Your task to perform on an android device: turn notification dots on Image 0: 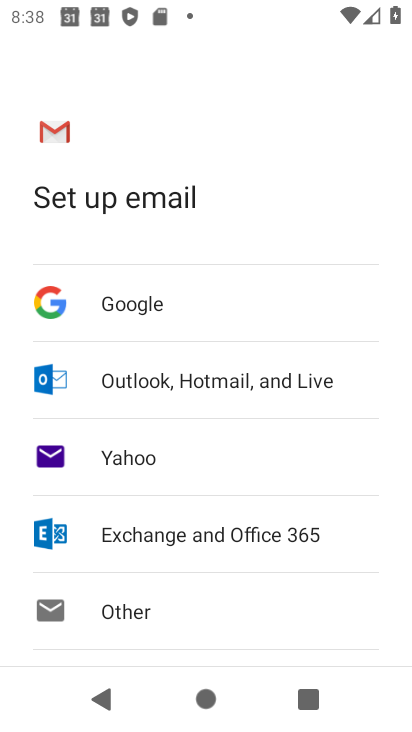
Step 0: press back button
Your task to perform on an android device: turn notification dots on Image 1: 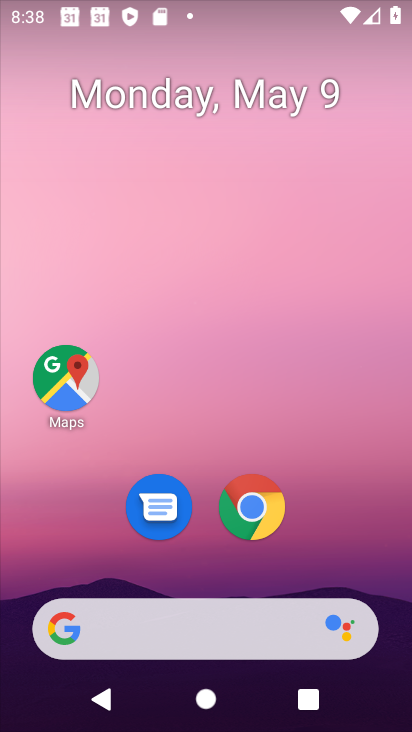
Step 1: drag from (350, 552) to (269, 148)
Your task to perform on an android device: turn notification dots on Image 2: 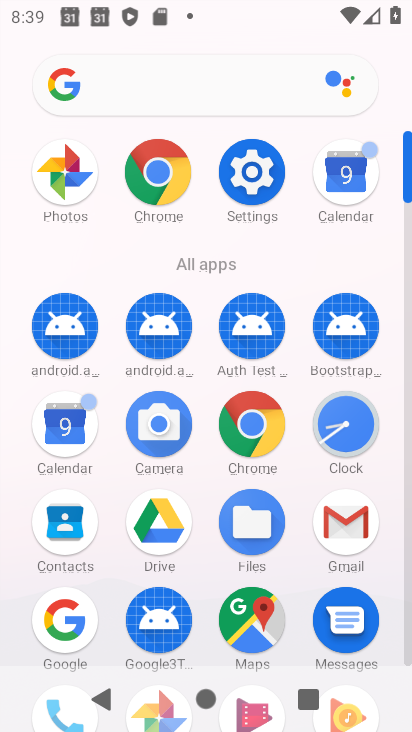
Step 2: click (254, 172)
Your task to perform on an android device: turn notification dots on Image 3: 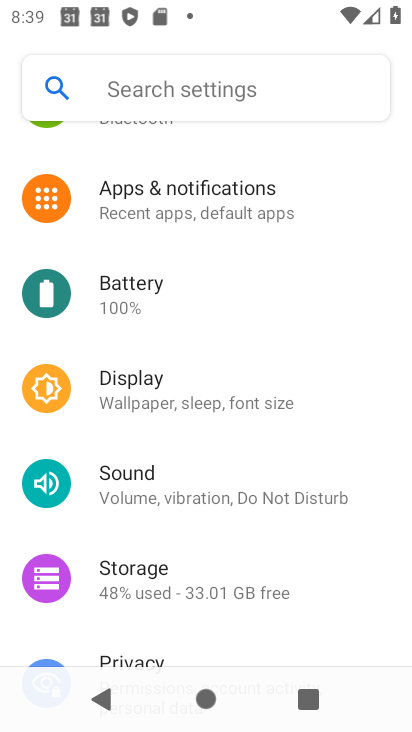
Step 3: click (210, 189)
Your task to perform on an android device: turn notification dots on Image 4: 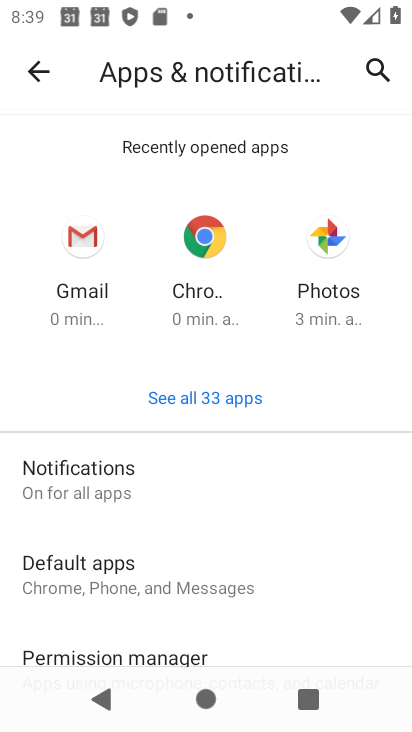
Step 4: click (95, 468)
Your task to perform on an android device: turn notification dots on Image 5: 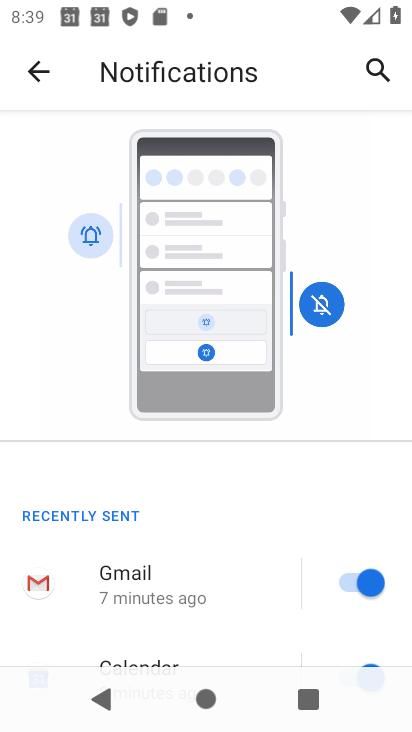
Step 5: drag from (212, 570) to (276, 374)
Your task to perform on an android device: turn notification dots on Image 6: 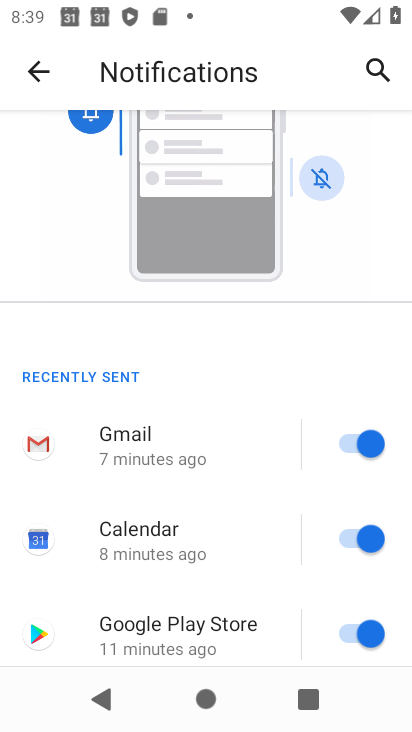
Step 6: drag from (185, 580) to (263, 427)
Your task to perform on an android device: turn notification dots on Image 7: 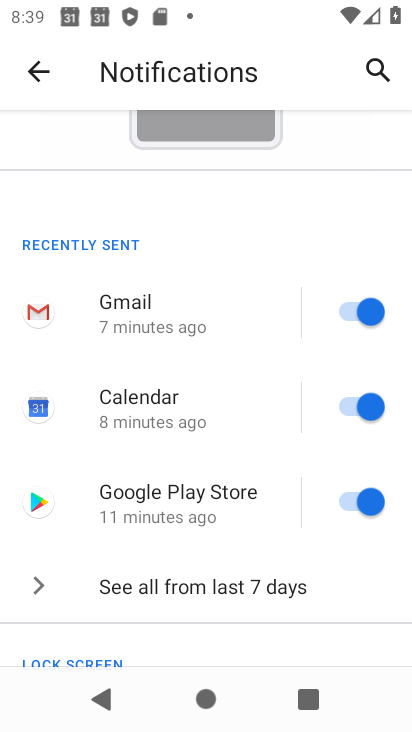
Step 7: drag from (183, 557) to (266, 383)
Your task to perform on an android device: turn notification dots on Image 8: 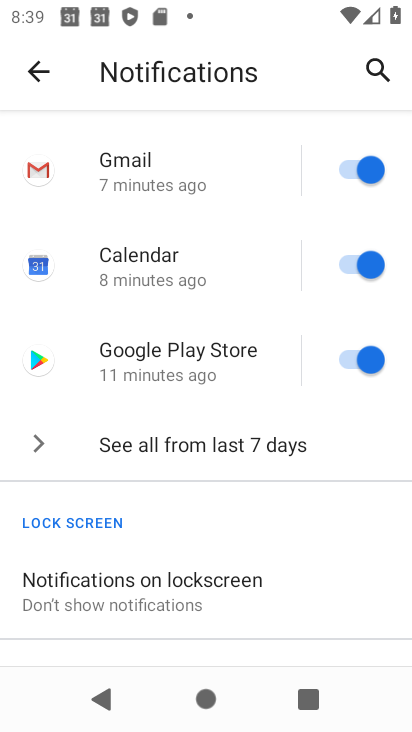
Step 8: drag from (130, 553) to (255, 370)
Your task to perform on an android device: turn notification dots on Image 9: 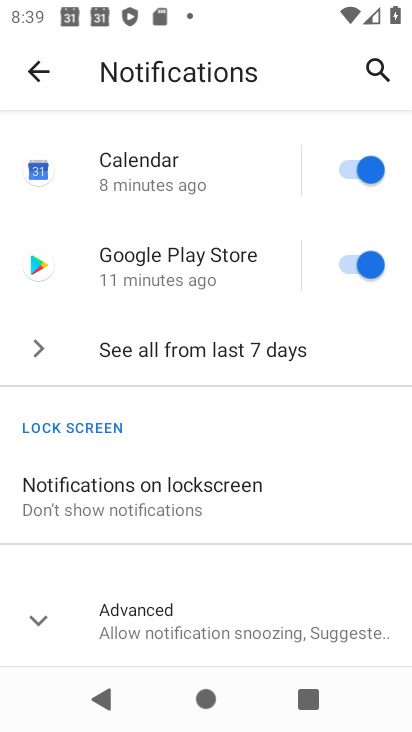
Step 9: drag from (212, 520) to (263, 372)
Your task to perform on an android device: turn notification dots on Image 10: 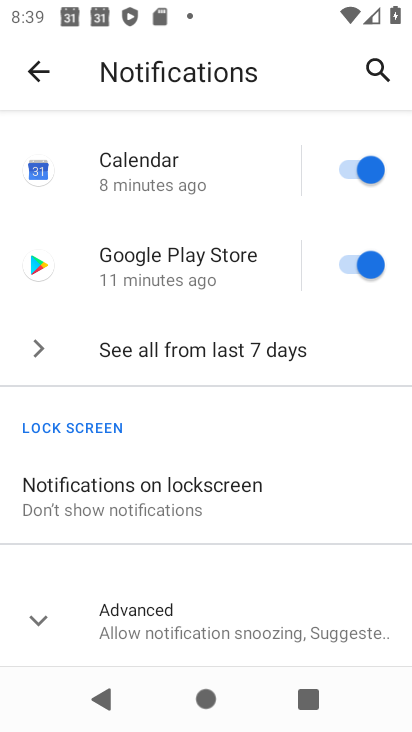
Step 10: click (164, 632)
Your task to perform on an android device: turn notification dots on Image 11: 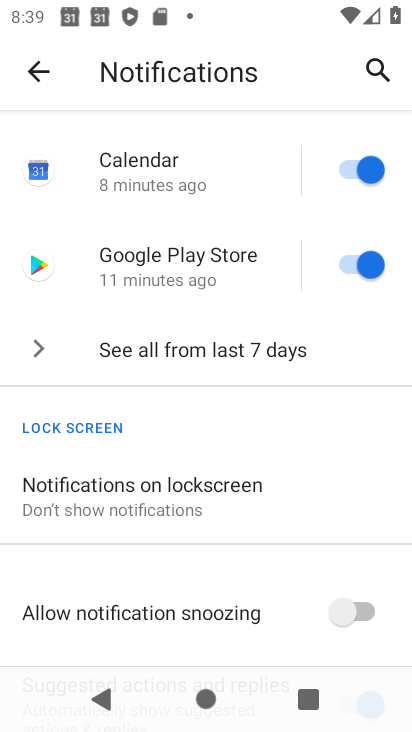
Step 11: task complete